Your task to perform on an android device: check out phone information Image 0: 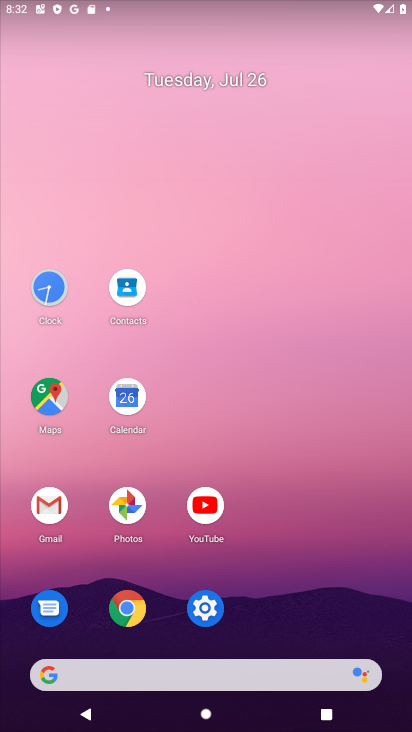
Step 0: click (207, 613)
Your task to perform on an android device: check out phone information Image 1: 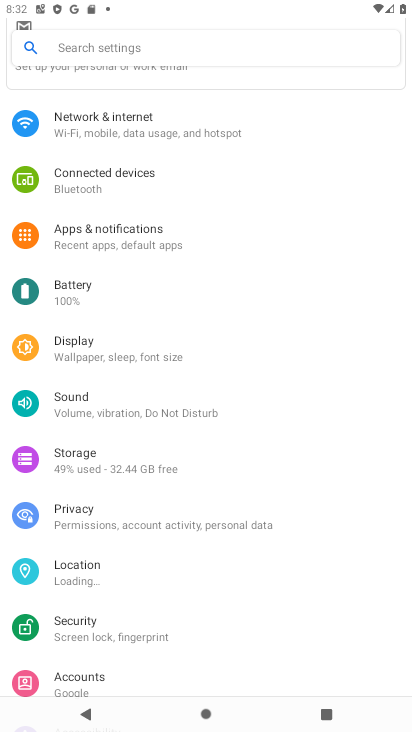
Step 1: drag from (207, 613) to (239, 222)
Your task to perform on an android device: check out phone information Image 2: 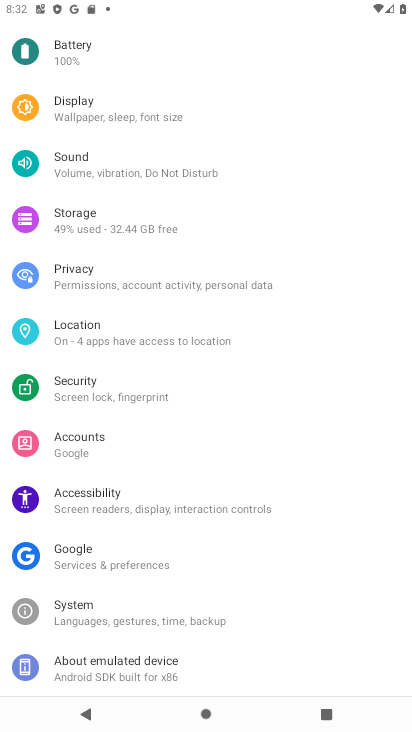
Step 2: click (123, 662)
Your task to perform on an android device: check out phone information Image 3: 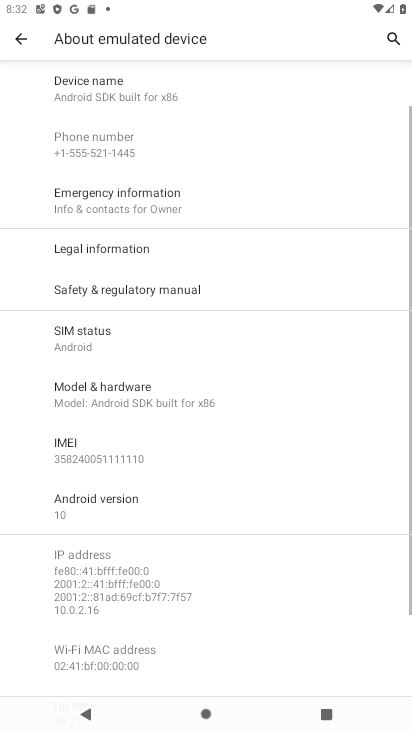
Step 3: task complete